Your task to perform on an android device: open chrome and create a bookmark for the current page Image 0: 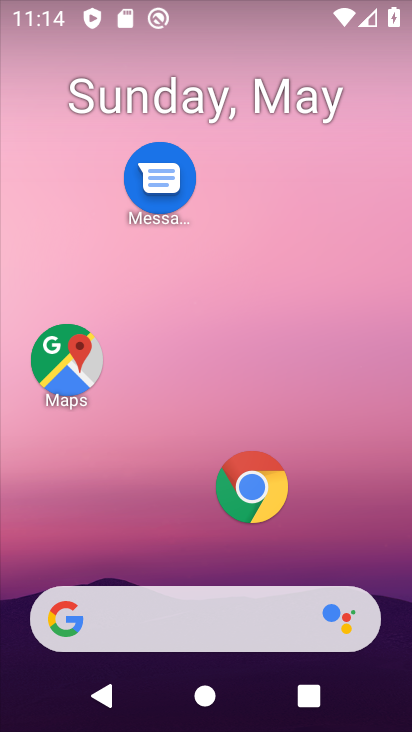
Step 0: click (252, 489)
Your task to perform on an android device: open chrome and create a bookmark for the current page Image 1: 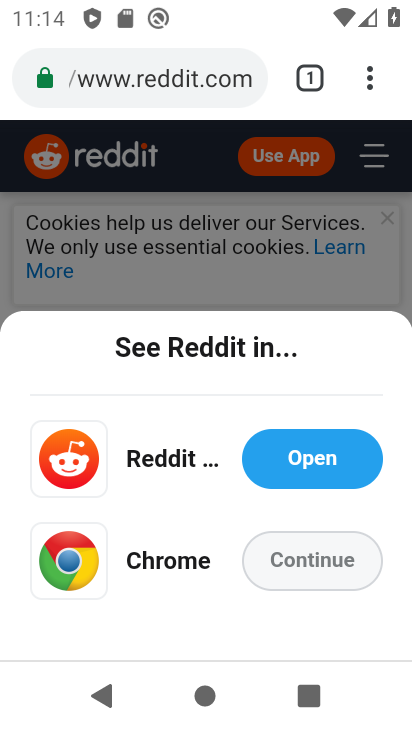
Step 1: click (379, 85)
Your task to perform on an android device: open chrome and create a bookmark for the current page Image 2: 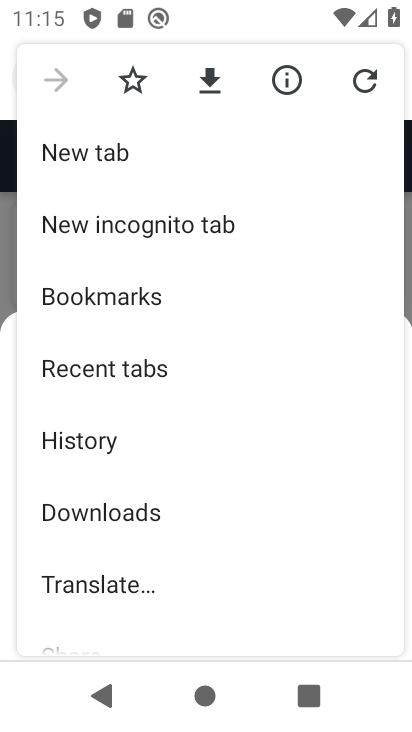
Step 2: click (125, 85)
Your task to perform on an android device: open chrome and create a bookmark for the current page Image 3: 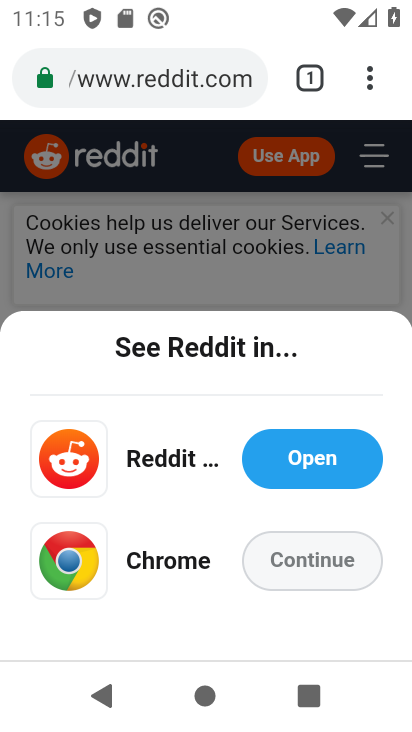
Step 3: task complete